Your task to perform on an android device: Go to Amazon Image 0: 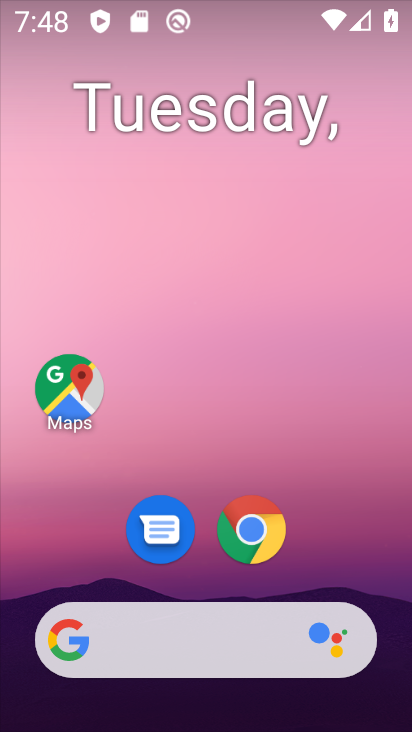
Step 0: click (257, 536)
Your task to perform on an android device: Go to Amazon Image 1: 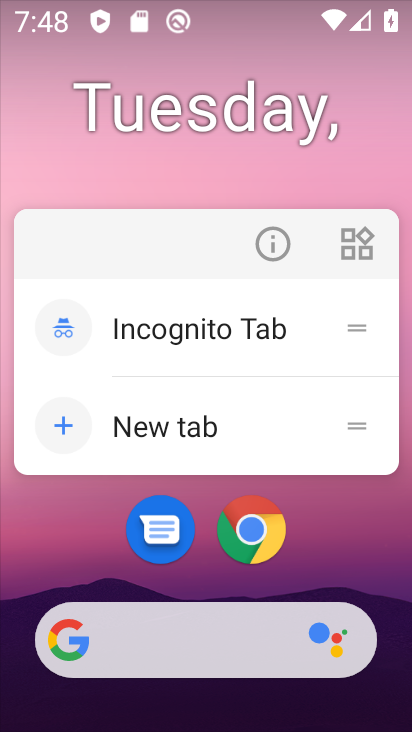
Step 1: click (258, 535)
Your task to perform on an android device: Go to Amazon Image 2: 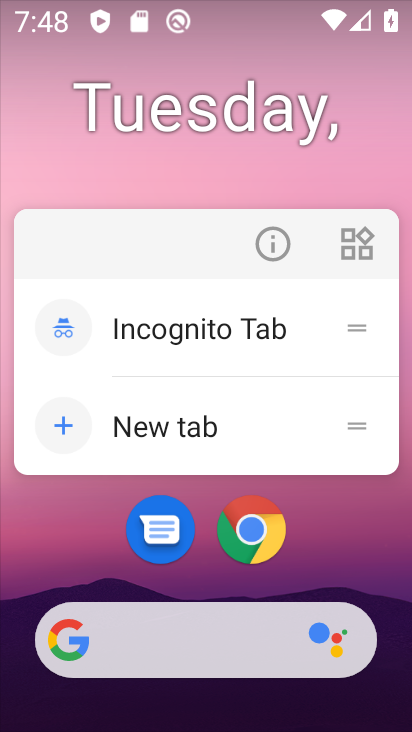
Step 2: click (258, 534)
Your task to perform on an android device: Go to Amazon Image 3: 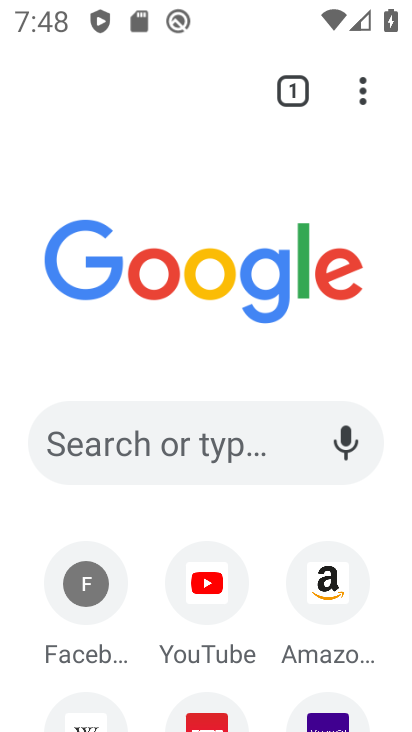
Step 3: click (317, 554)
Your task to perform on an android device: Go to Amazon Image 4: 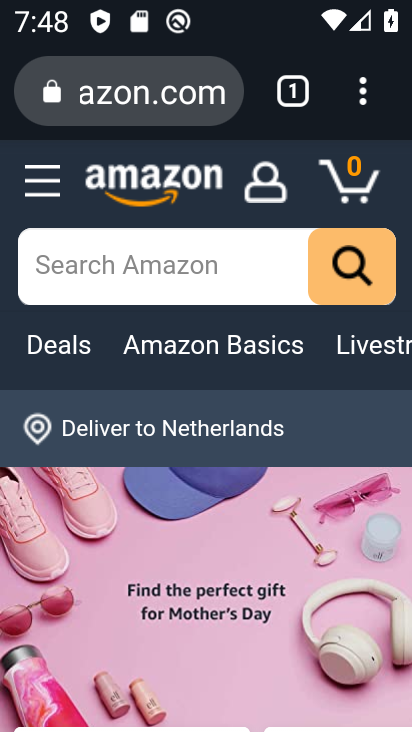
Step 4: task complete